Your task to perform on an android device: open app "Pluto TV - Live TV and Movies" (install if not already installed) and enter user name: "wools@yahoo.com" and password: "misplacing" Image 0: 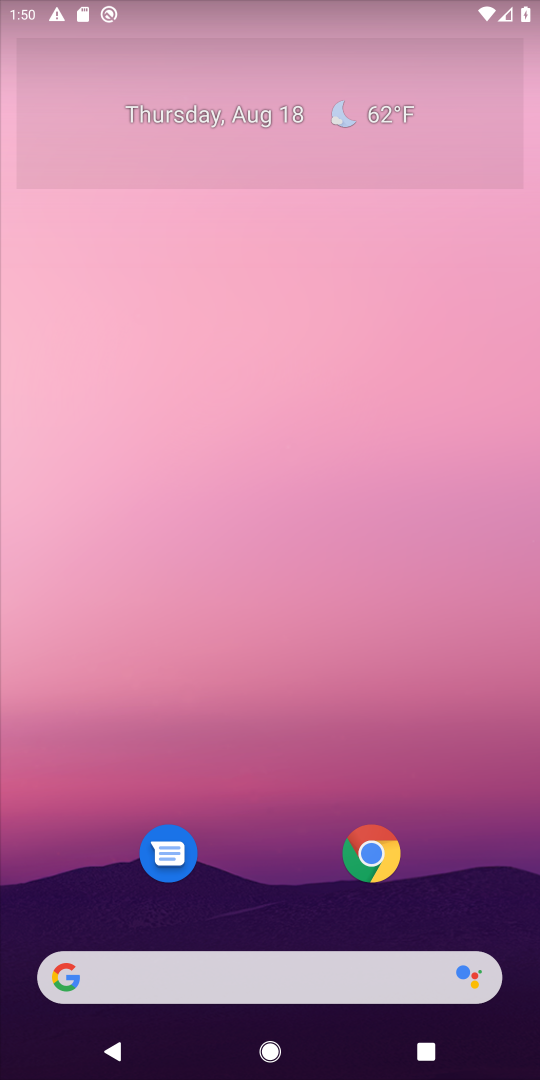
Step 0: drag from (500, 890) to (103, 970)
Your task to perform on an android device: open app "Pluto TV - Live TV and Movies" (install if not already installed) and enter user name: "wools@yahoo.com" and password: "misplacing" Image 1: 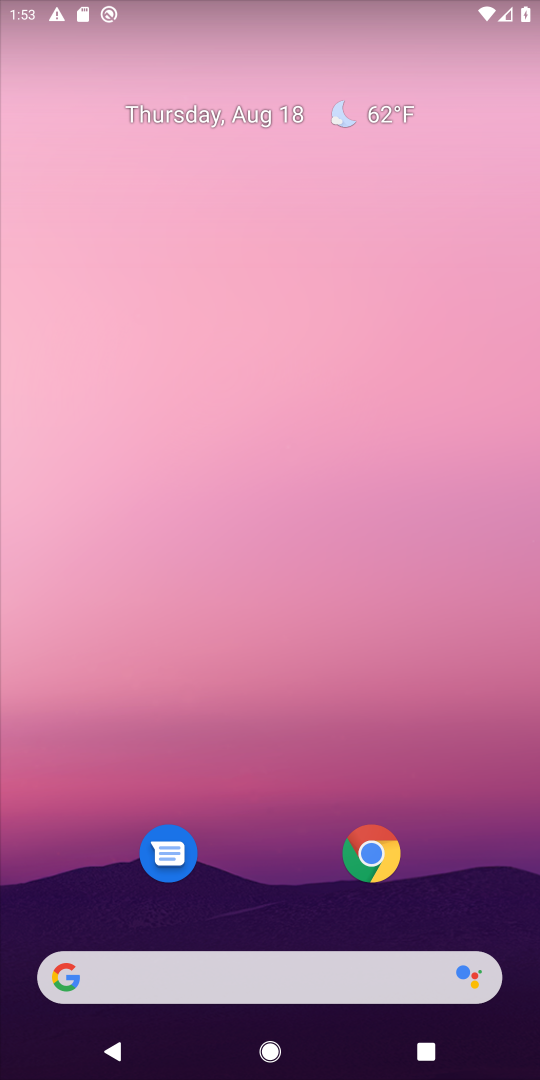
Step 1: drag from (491, 882) to (272, 34)
Your task to perform on an android device: open app "Pluto TV - Live TV and Movies" (install if not already installed) and enter user name: "wools@yahoo.com" and password: "misplacing" Image 2: 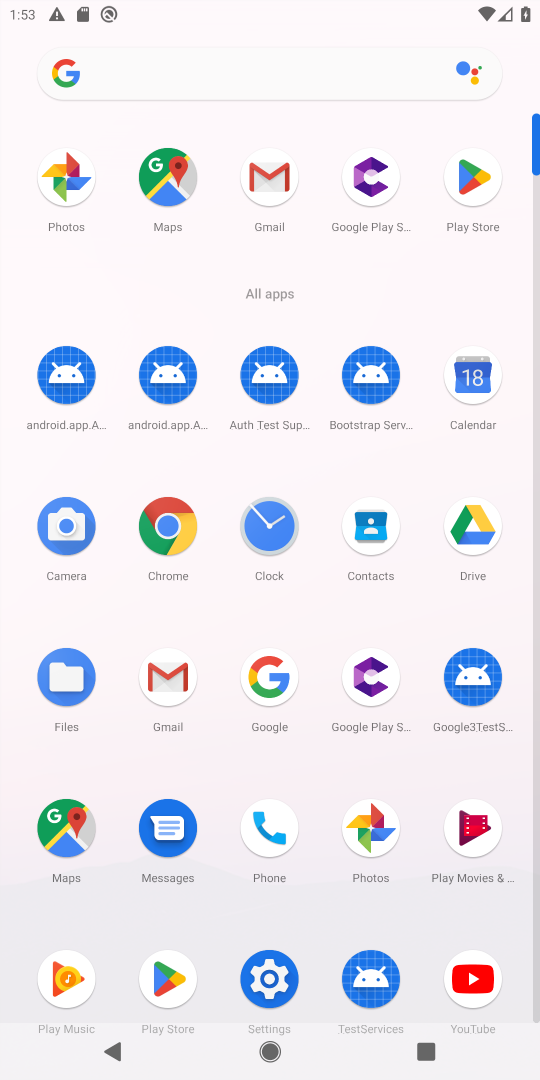
Step 2: click (468, 181)
Your task to perform on an android device: open app "Pluto TV - Live TV and Movies" (install if not already installed) and enter user name: "wools@yahoo.com" and password: "misplacing" Image 3: 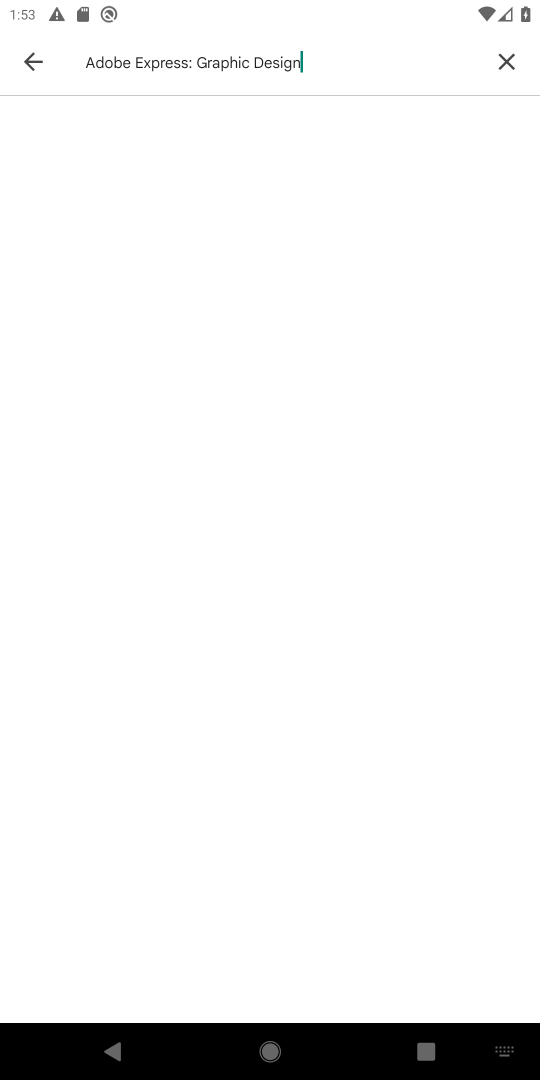
Step 3: click (503, 70)
Your task to perform on an android device: open app "Pluto TV - Live TV and Movies" (install if not already installed) and enter user name: "wools@yahoo.com" and password: "misplacing" Image 4: 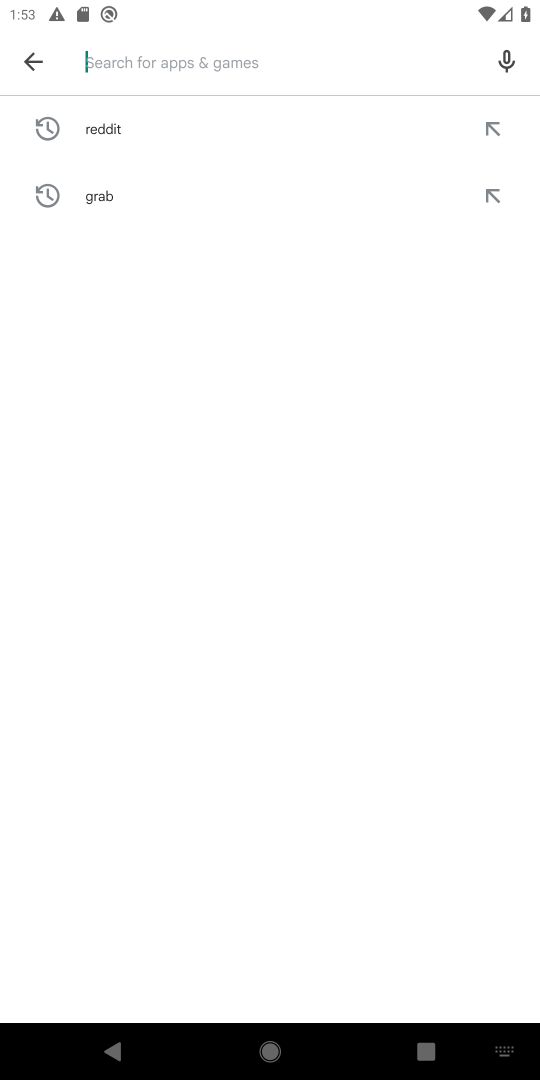
Step 4: type "Pluto TV - Live TV and Movies"
Your task to perform on an android device: open app "Pluto TV - Live TV and Movies" (install if not already installed) and enter user name: "wools@yahoo.com" and password: "misplacing" Image 5: 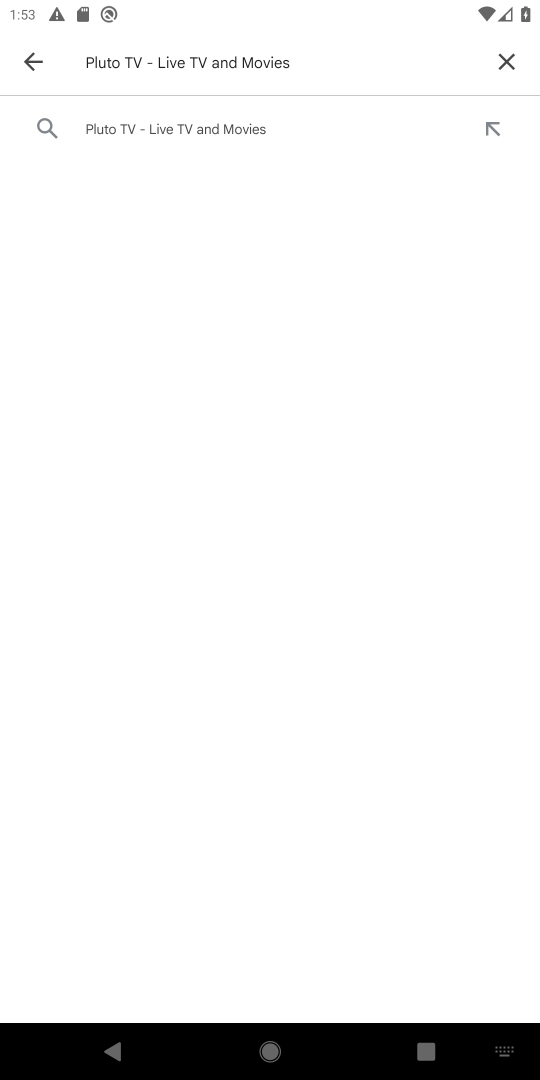
Step 5: click (193, 133)
Your task to perform on an android device: open app "Pluto TV - Live TV and Movies" (install if not already installed) and enter user name: "wools@yahoo.com" and password: "misplacing" Image 6: 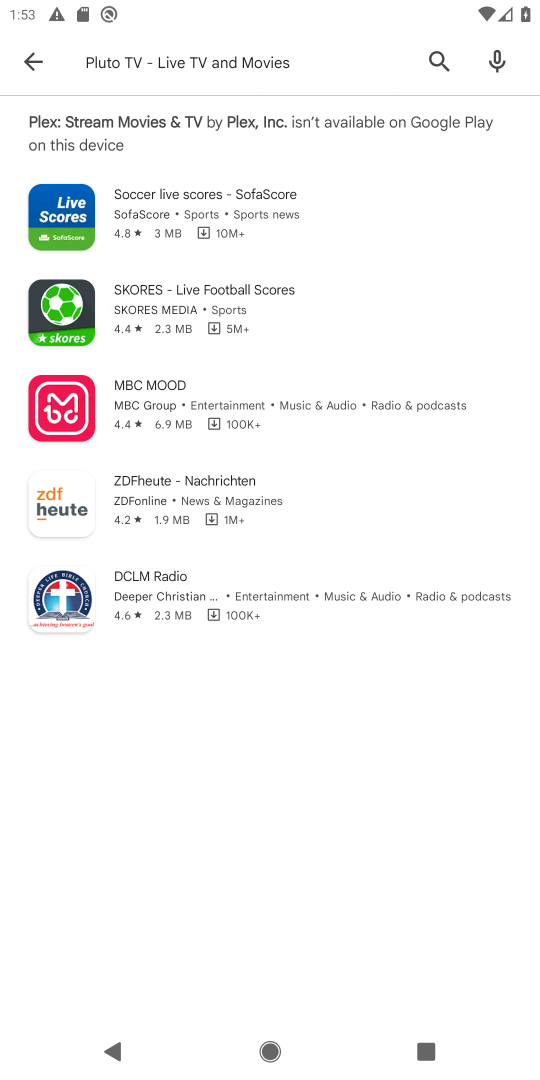
Step 6: task complete